Your task to perform on an android device: What's the weather going to be this weekend? Image 0: 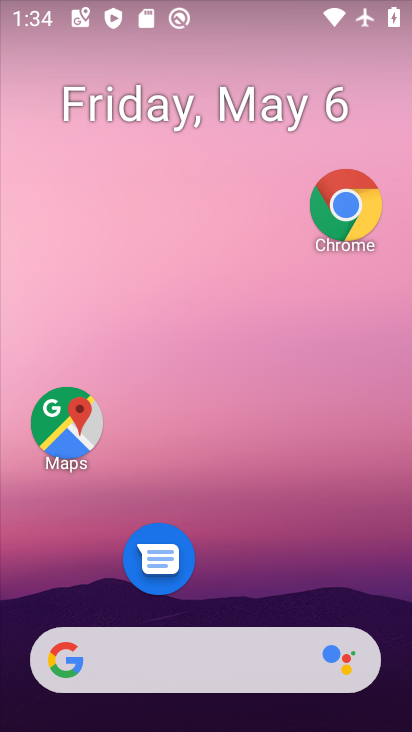
Step 0: click (68, 656)
Your task to perform on an android device: What's the weather going to be this weekend? Image 1: 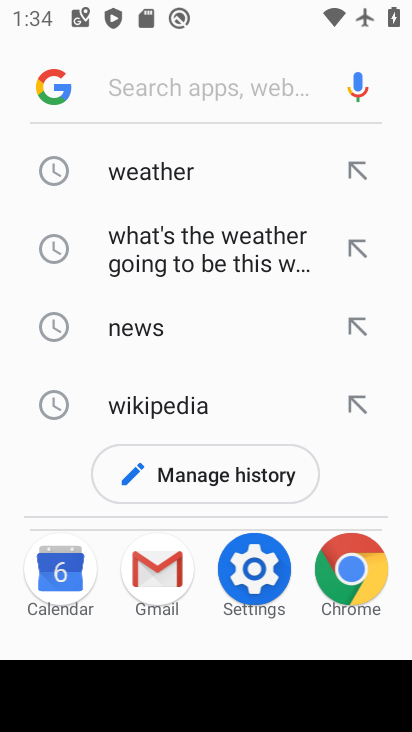
Step 1: click (173, 170)
Your task to perform on an android device: What's the weather going to be this weekend? Image 2: 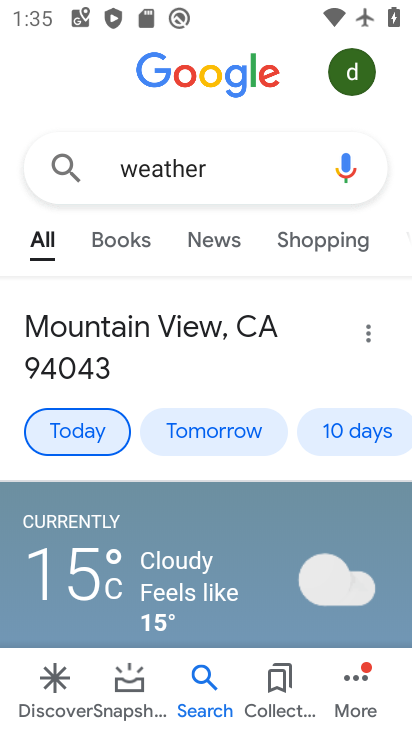
Step 2: click (347, 433)
Your task to perform on an android device: What's the weather going to be this weekend? Image 3: 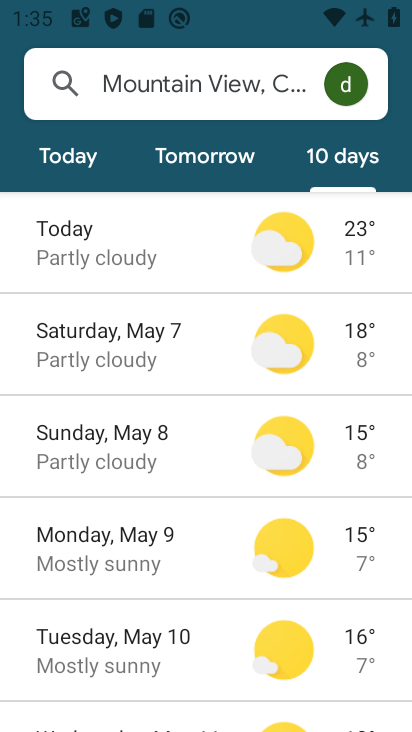
Step 3: click (152, 345)
Your task to perform on an android device: What's the weather going to be this weekend? Image 4: 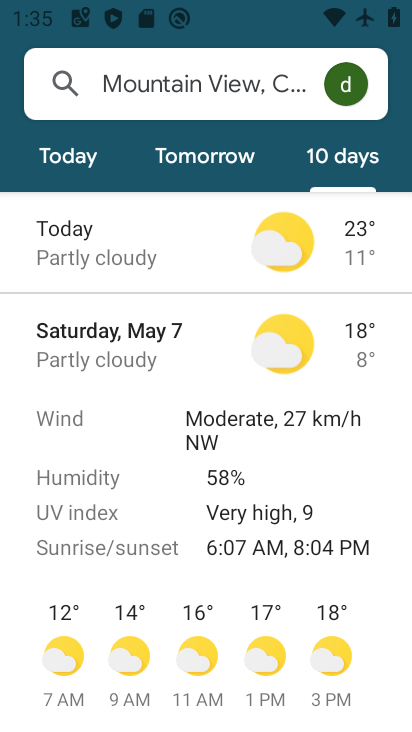
Step 4: task complete